Your task to perform on an android device: Check the news Image 0: 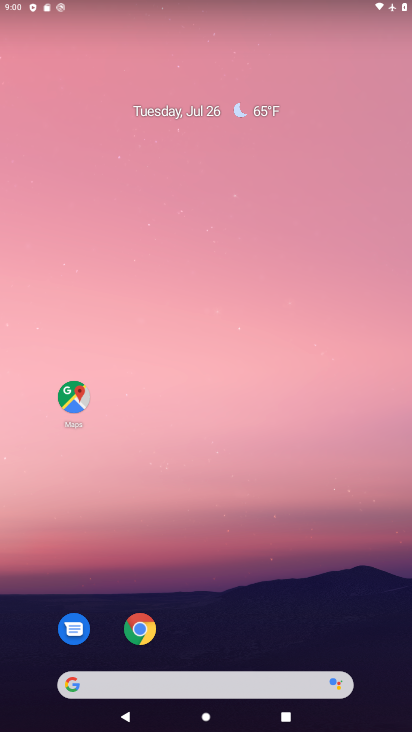
Step 0: drag from (340, 540) to (301, 17)
Your task to perform on an android device: Check the news Image 1: 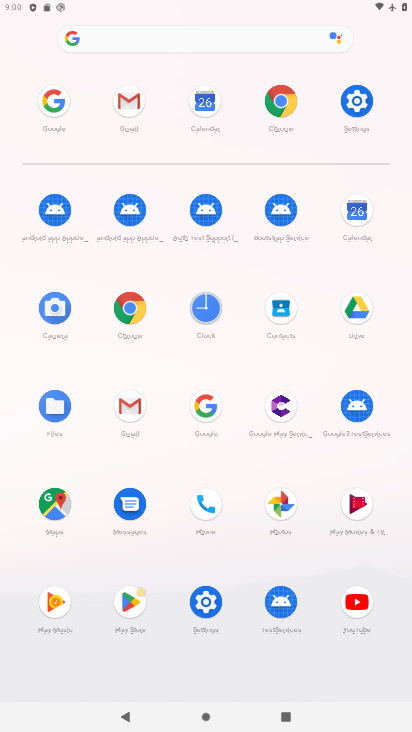
Step 1: click (283, 97)
Your task to perform on an android device: Check the news Image 2: 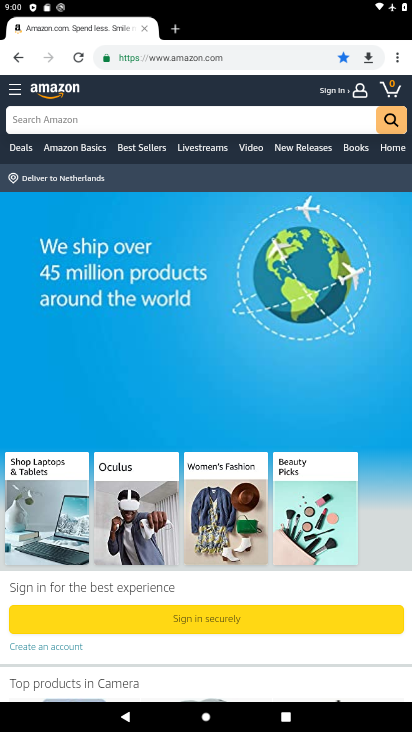
Step 2: click (284, 62)
Your task to perform on an android device: Check the news Image 3: 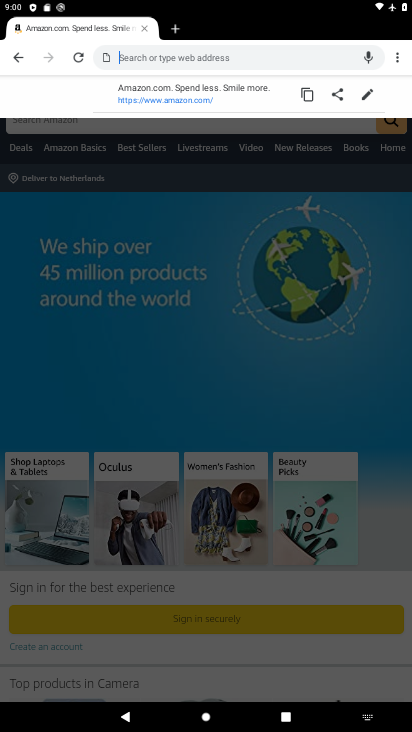
Step 3: type "news"
Your task to perform on an android device: Check the news Image 4: 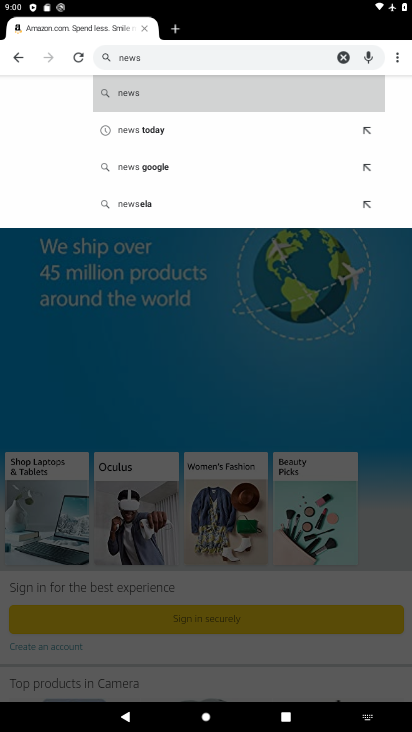
Step 4: click (299, 88)
Your task to perform on an android device: Check the news Image 5: 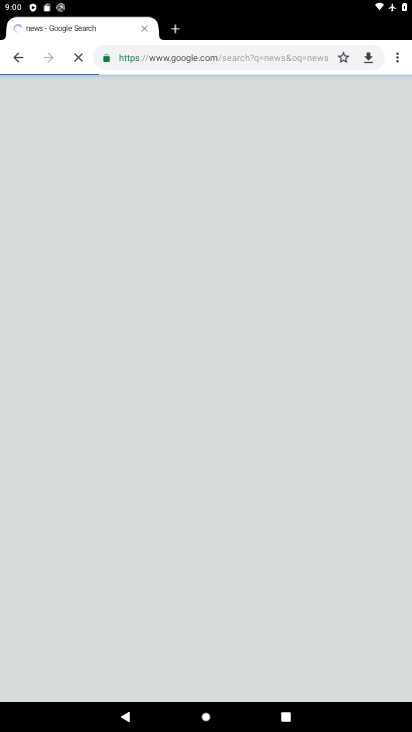
Step 5: click (291, 75)
Your task to perform on an android device: Check the news Image 6: 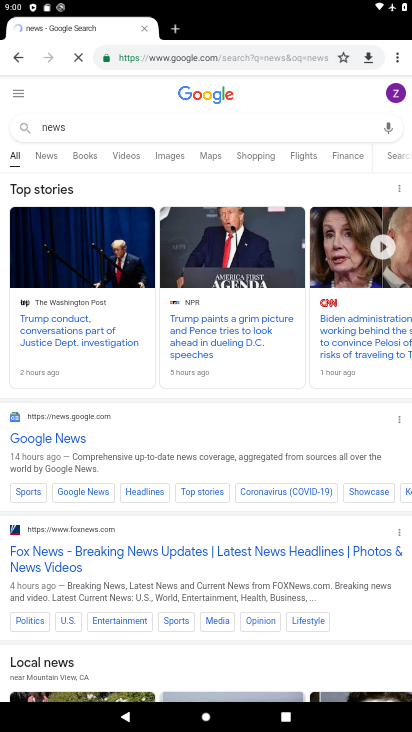
Step 6: click (59, 443)
Your task to perform on an android device: Check the news Image 7: 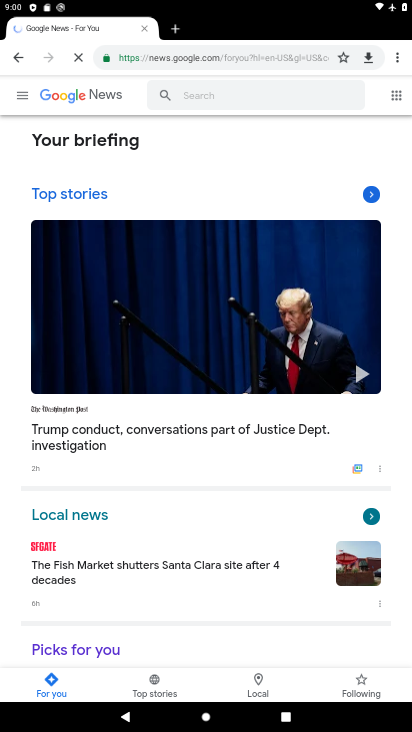
Step 7: task complete